Your task to perform on an android device: Go to location settings Image 0: 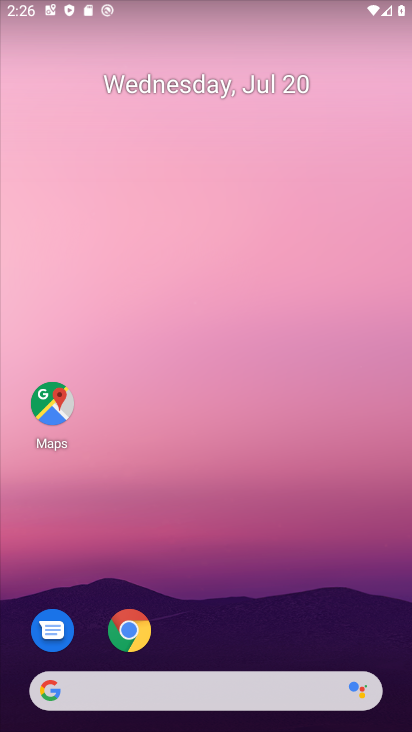
Step 0: press home button
Your task to perform on an android device: Go to location settings Image 1: 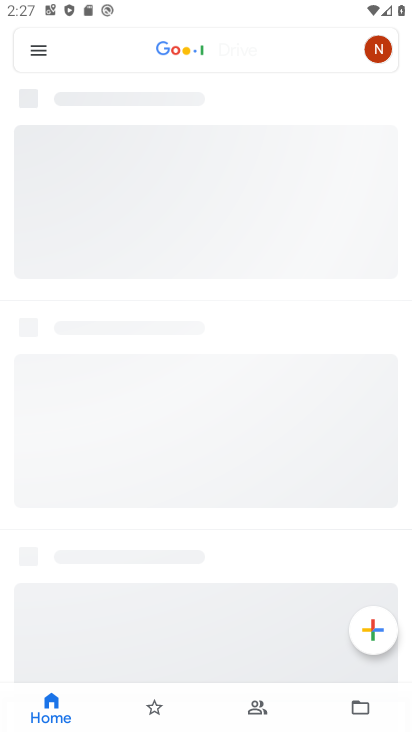
Step 1: drag from (327, 138) to (335, 77)
Your task to perform on an android device: Go to location settings Image 2: 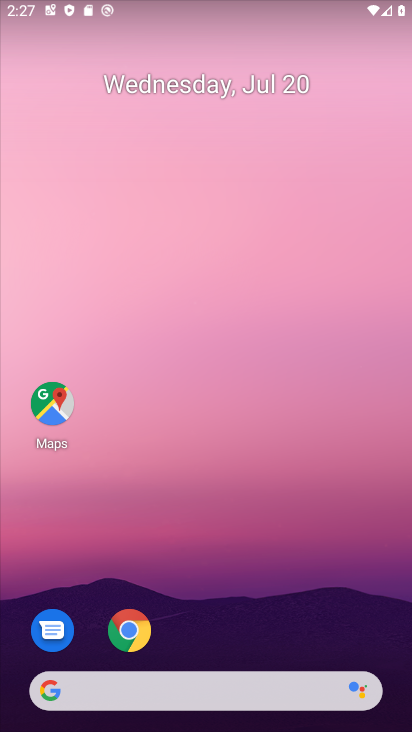
Step 2: drag from (339, 520) to (312, 33)
Your task to perform on an android device: Go to location settings Image 3: 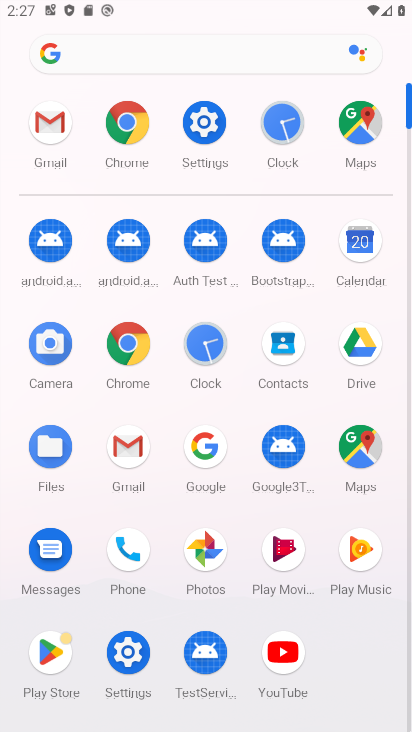
Step 3: click (203, 122)
Your task to perform on an android device: Go to location settings Image 4: 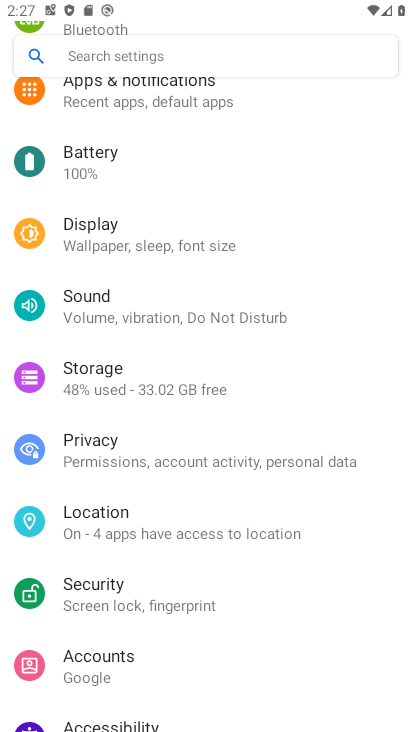
Step 4: drag from (320, 175) to (326, 284)
Your task to perform on an android device: Go to location settings Image 5: 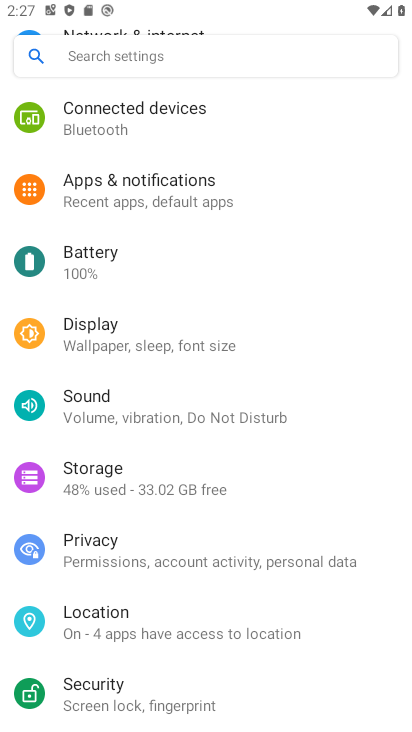
Step 5: drag from (339, 147) to (342, 271)
Your task to perform on an android device: Go to location settings Image 6: 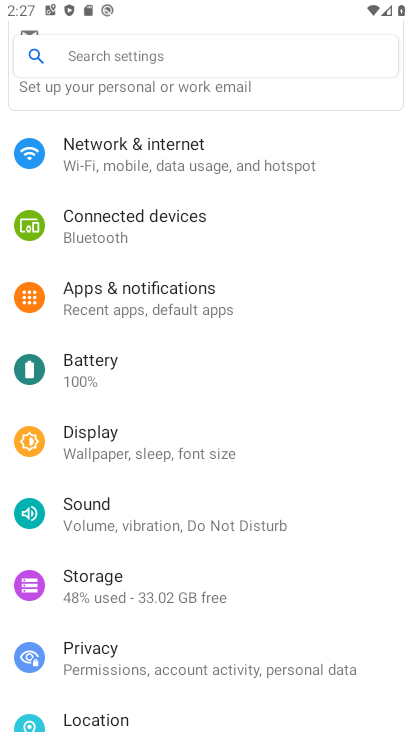
Step 6: drag from (360, 139) to (358, 322)
Your task to perform on an android device: Go to location settings Image 7: 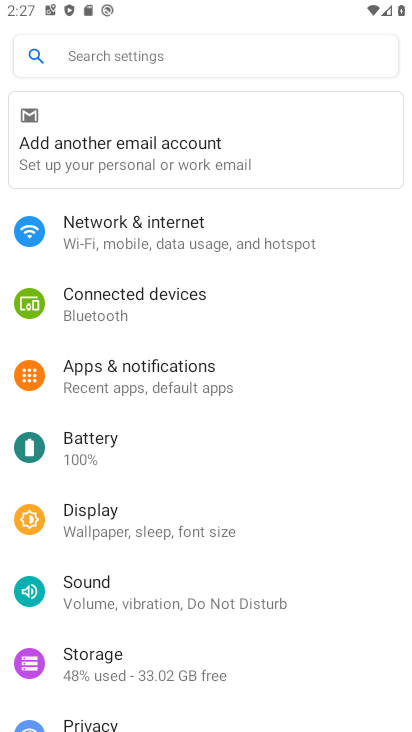
Step 7: drag from (337, 426) to (336, 300)
Your task to perform on an android device: Go to location settings Image 8: 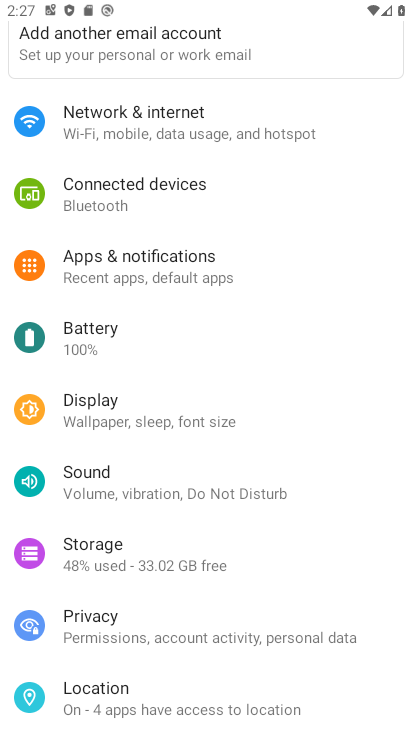
Step 8: drag from (336, 502) to (336, 388)
Your task to perform on an android device: Go to location settings Image 9: 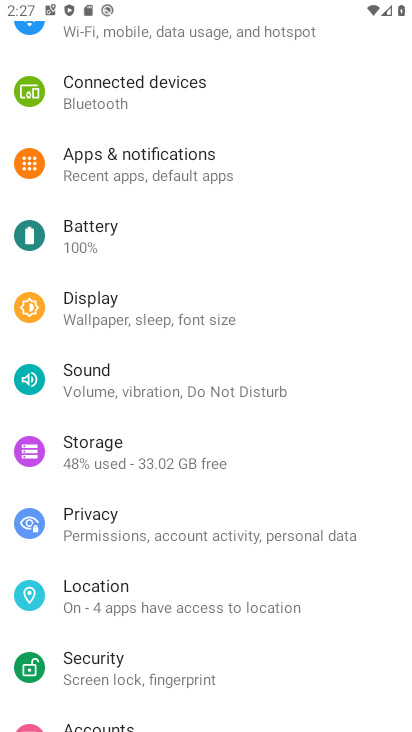
Step 9: drag from (320, 450) to (334, 362)
Your task to perform on an android device: Go to location settings Image 10: 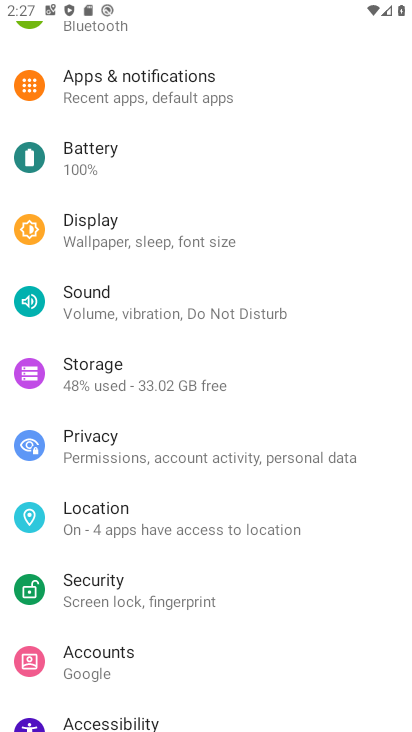
Step 10: drag from (341, 529) to (344, 375)
Your task to perform on an android device: Go to location settings Image 11: 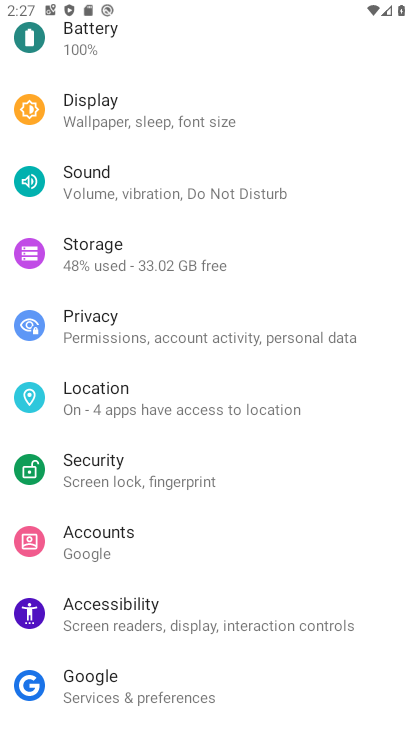
Step 11: click (282, 402)
Your task to perform on an android device: Go to location settings Image 12: 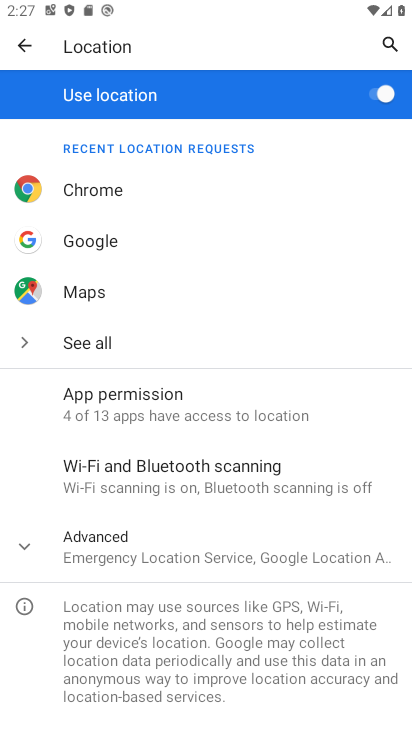
Step 12: task complete